Your task to perform on an android device: turn on airplane mode Image 0: 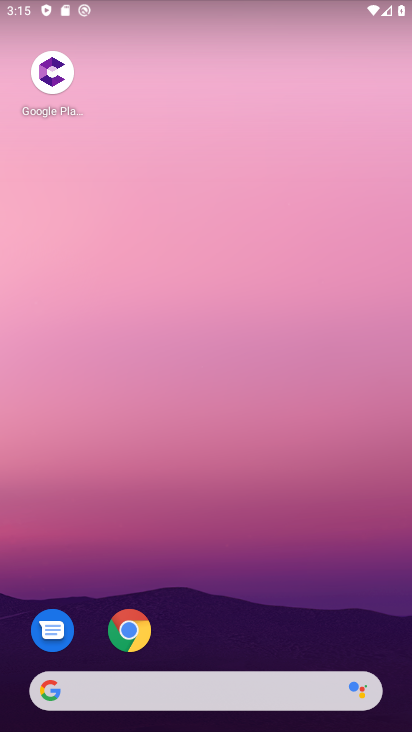
Step 0: drag from (182, 142) to (128, 2)
Your task to perform on an android device: turn on airplane mode Image 1: 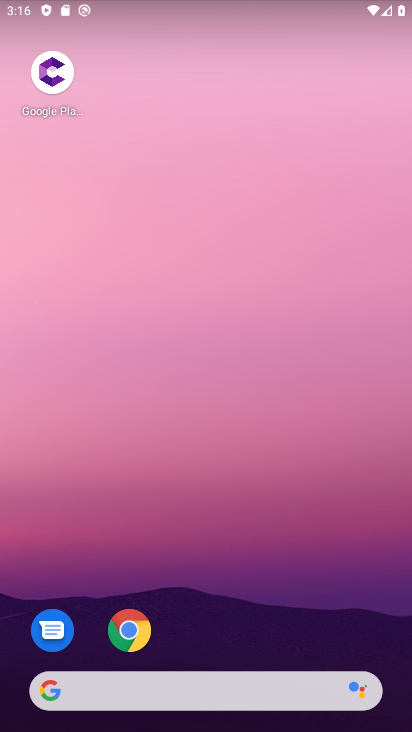
Step 1: drag from (192, 526) to (142, 76)
Your task to perform on an android device: turn on airplane mode Image 2: 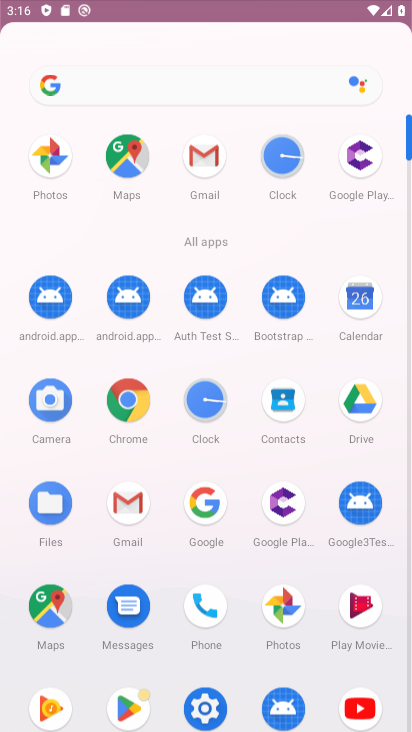
Step 2: click (181, 308)
Your task to perform on an android device: turn on airplane mode Image 3: 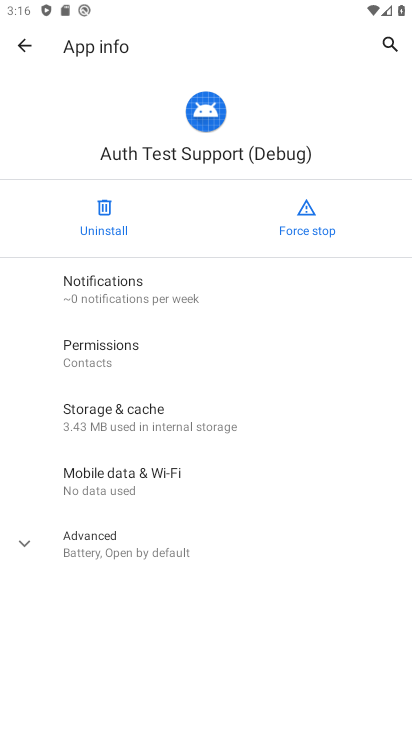
Step 3: click (23, 43)
Your task to perform on an android device: turn on airplane mode Image 4: 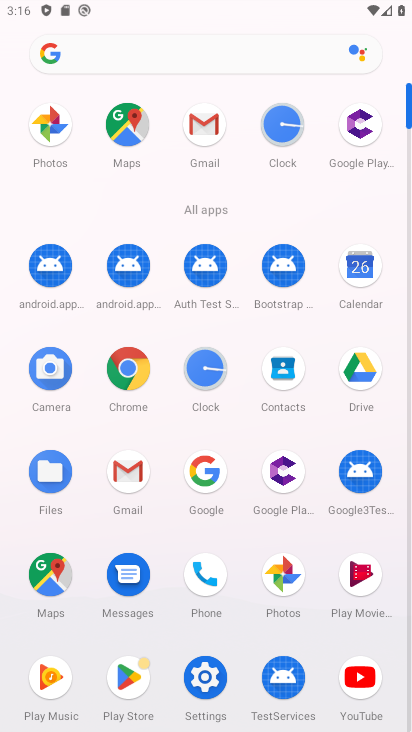
Step 4: click (205, 687)
Your task to perform on an android device: turn on airplane mode Image 5: 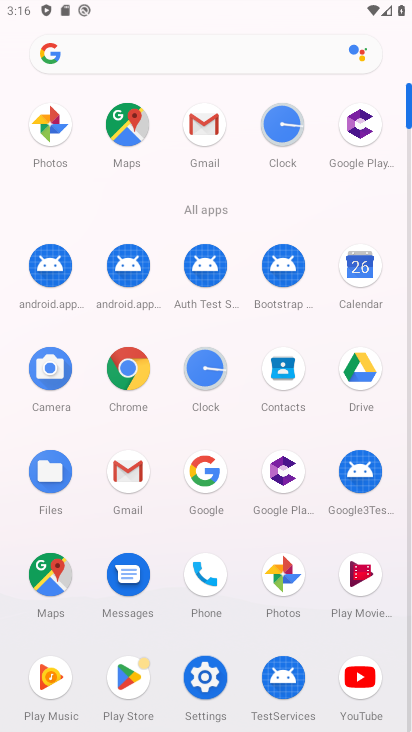
Step 5: click (206, 685)
Your task to perform on an android device: turn on airplane mode Image 6: 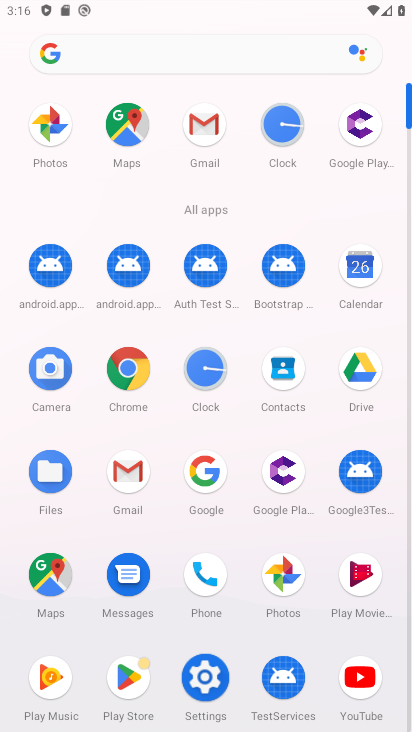
Step 6: click (206, 685)
Your task to perform on an android device: turn on airplane mode Image 7: 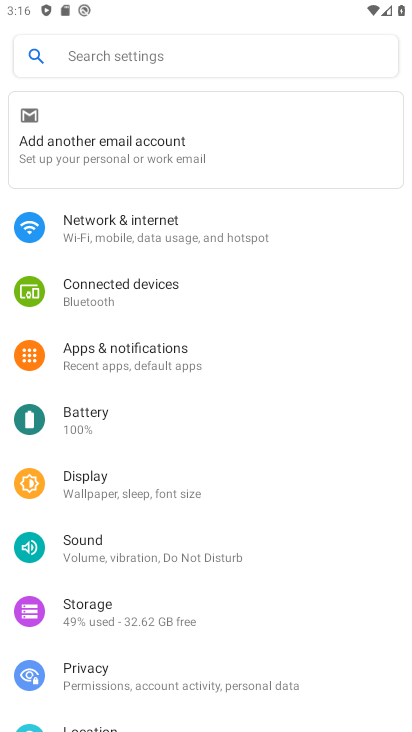
Step 7: click (111, 224)
Your task to perform on an android device: turn on airplane mode Image 8: 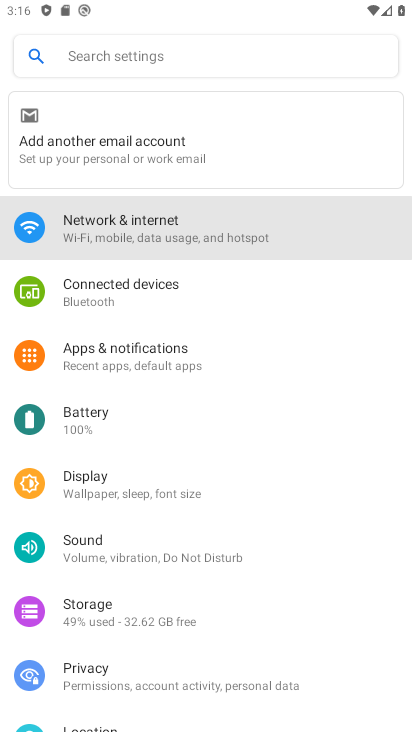
Step 8: click (111, 224)
Your task to perform on an android device: turn on airplane mode Image 9: 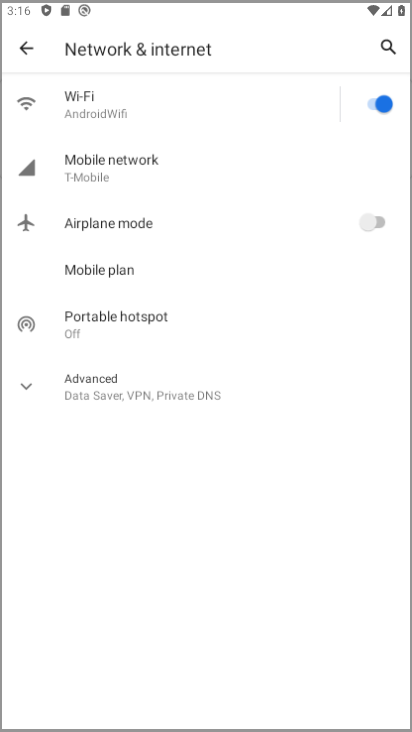
Step 9: click (107, 236)
Your task to perform on an android device: turn on airplane mode Image 10: 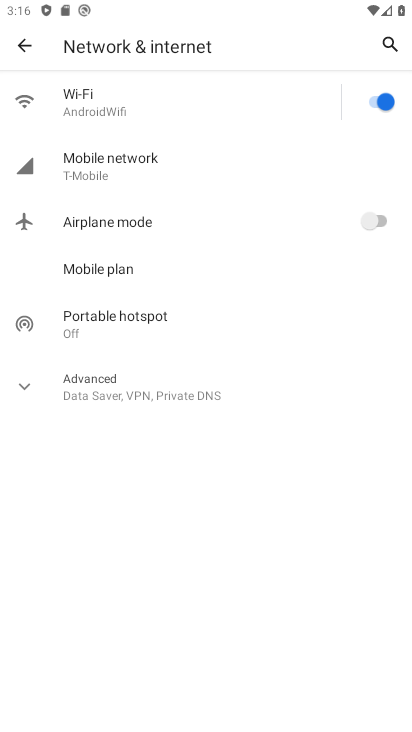
Step 10: click (107, 236)
Your task to perform on an android device: turn on airplane mode Image 11: 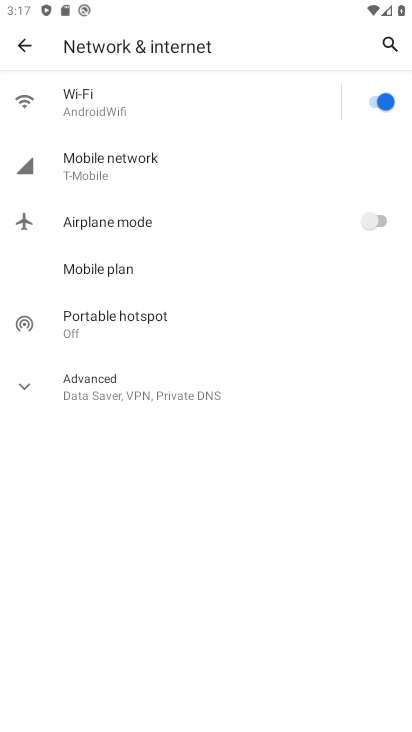
Step 11: click (380, 216)
Your task to perform on an android device: turn on airplane mode Image 12: 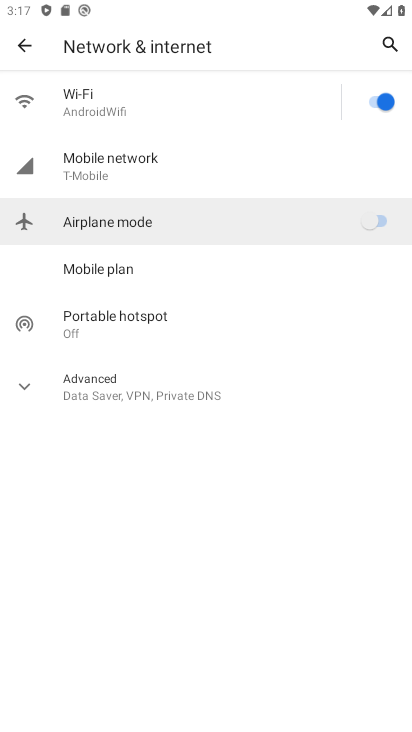
Step 12: click (380, 216)
Your task to perform on an android device: turn on airplane mode Image 13: 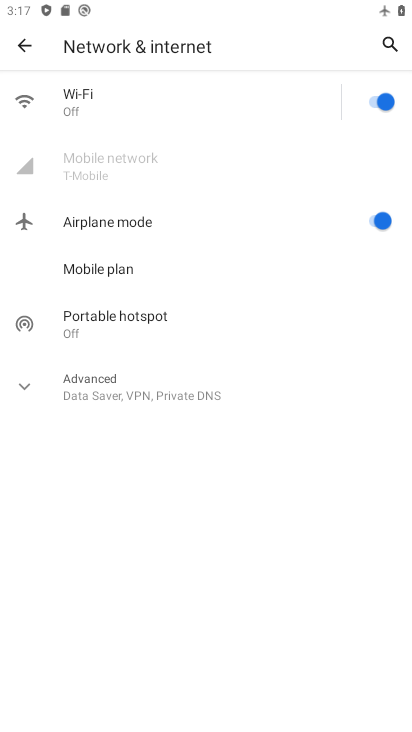
Step 13: click (380, 216)
Your task to perform on an android device: turn on airplane mode Image 14: 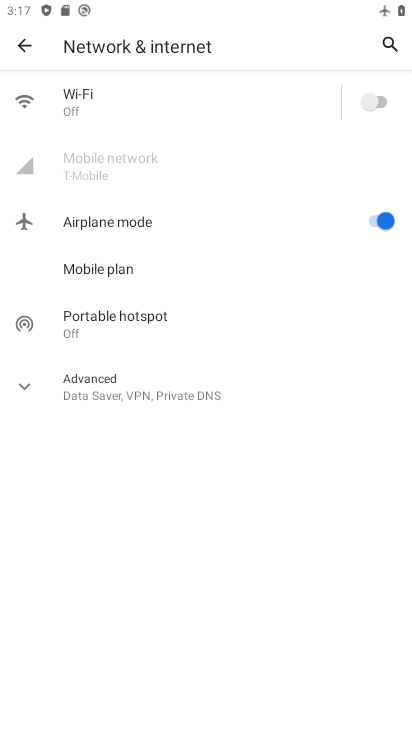
Step 14: task complete